Your task to perform on an android device: Go to Google maps Image 0: 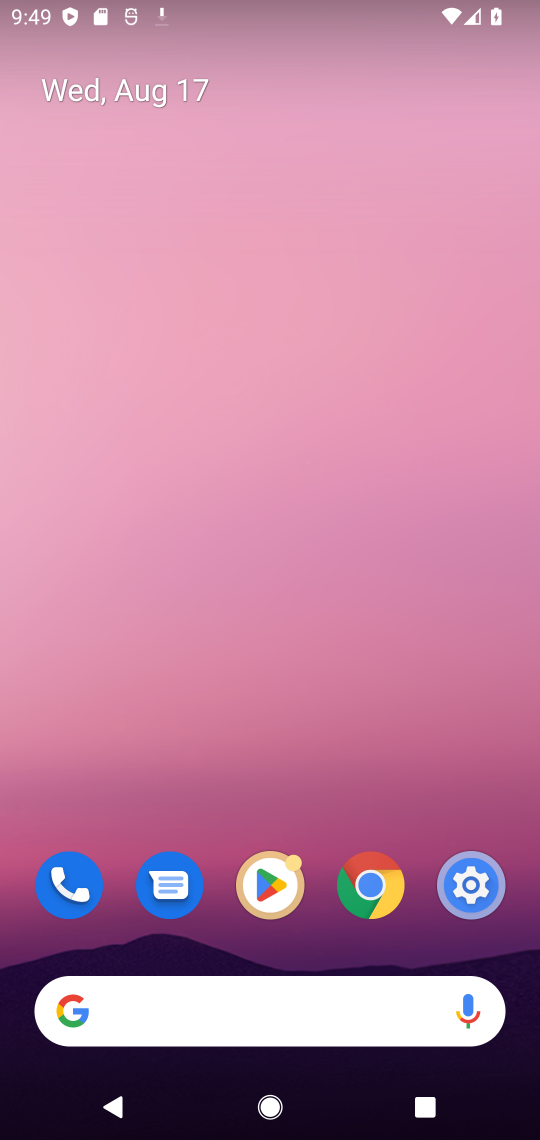
Step 0: drag from (410, 939) to (405, 20)
Your task to perform on an android device: Go to Google maps Image 1: 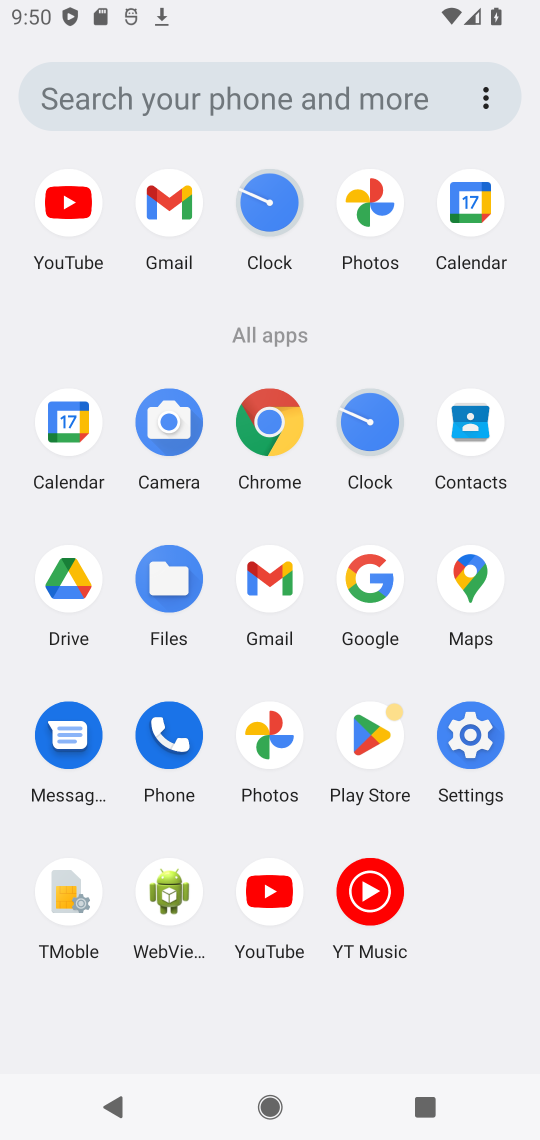
Step 1: click (472, 572)
Your task to perform on an android device: Go to Google maps Image 2: 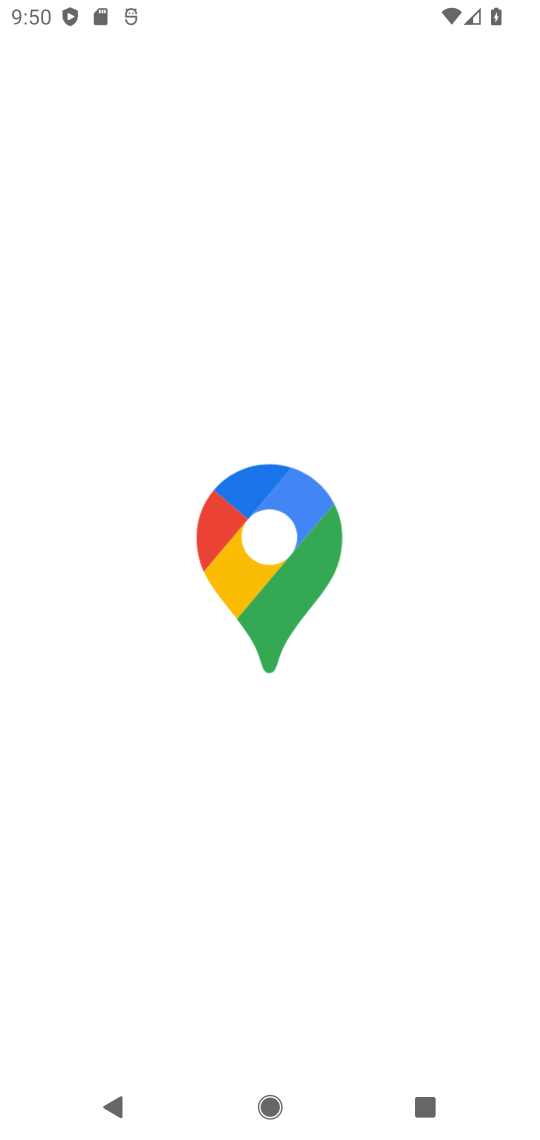
Step 2: press back button
Your task to perform on an android device: Go to Google maps Image 3: 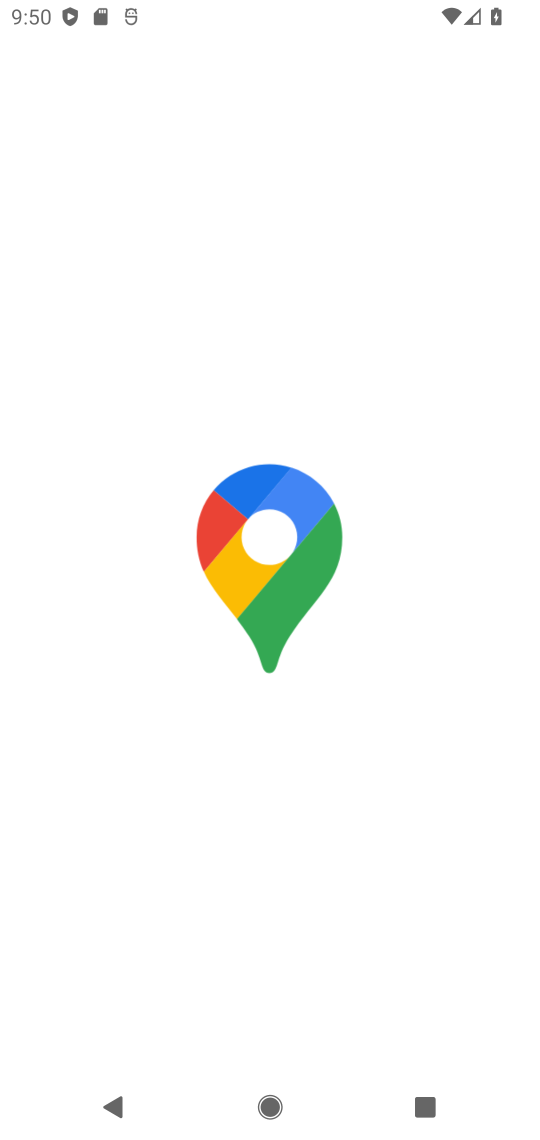
Step 3: press home button
Your task to perform on an android device: Go to Google maps Image 4: 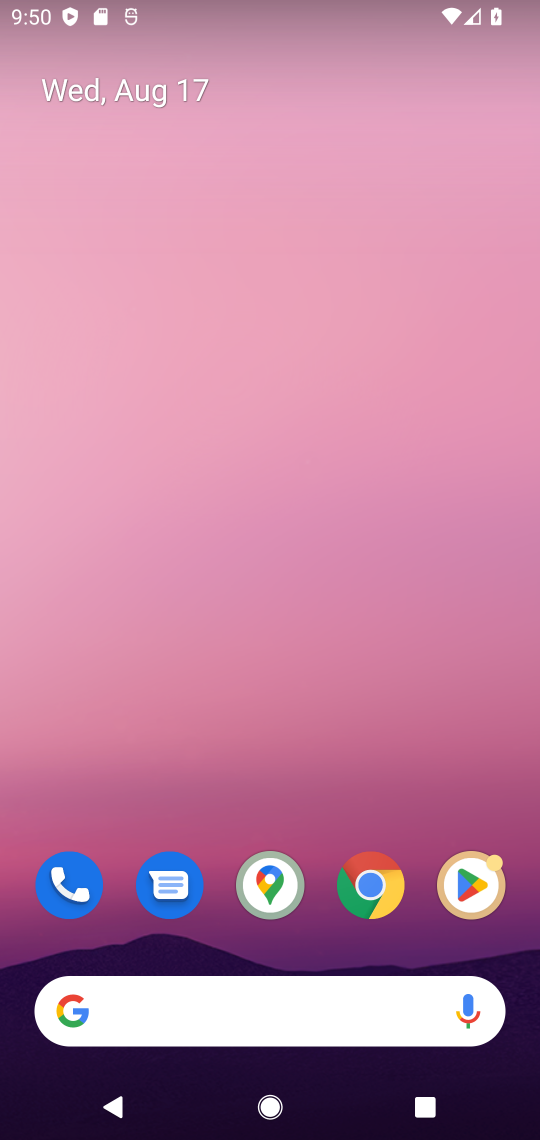
Step 4: click (272, 882)
Your task to perform on an android device: Go to Google maps Image 5: 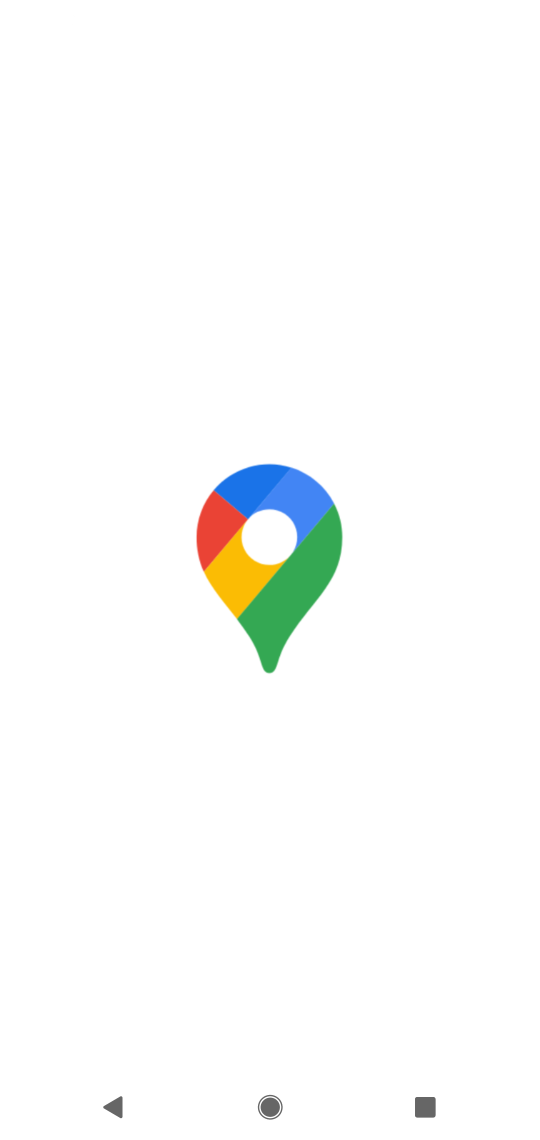
Step 5: task complete